Your task to perform on an android device: allow notifications from all sites in the chrome app Image 0: 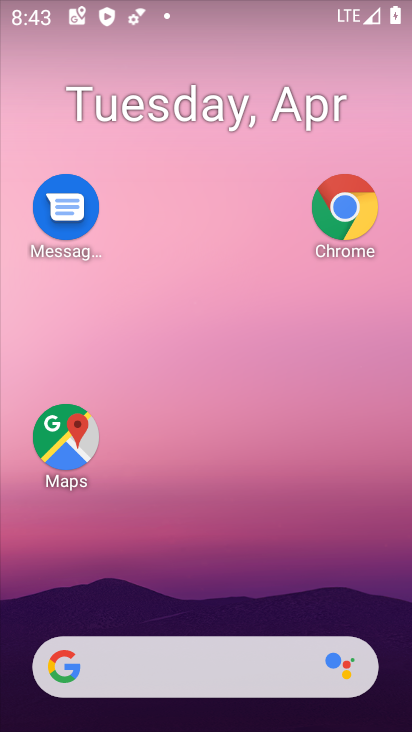
Step 0: drag from (197, 621) to (219, 2)
Your task to perform on an android device: allow notifications from all sites in the chrome app Image 1: 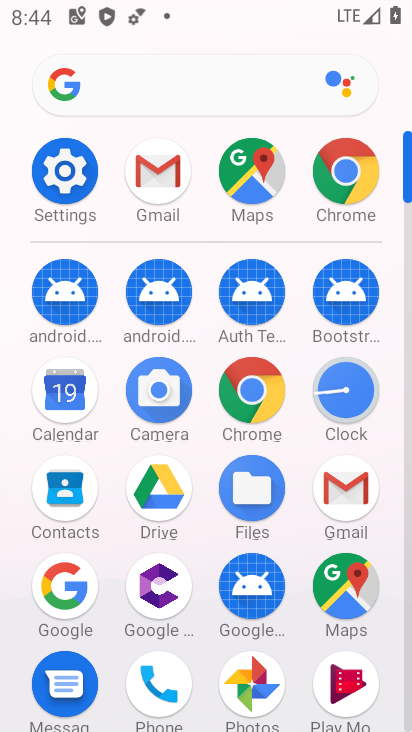
Step 1: click (335, 177)
Your task to perform on an android device: allow notifications from all sites in the chrome app Image 2: 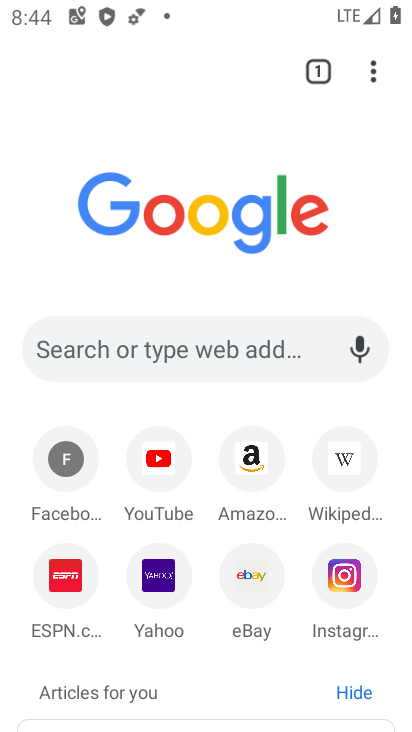
Step 2: click (369, 73)
Your task to perform on an android device: allow notifications from all sites in the chrome app Image 3: 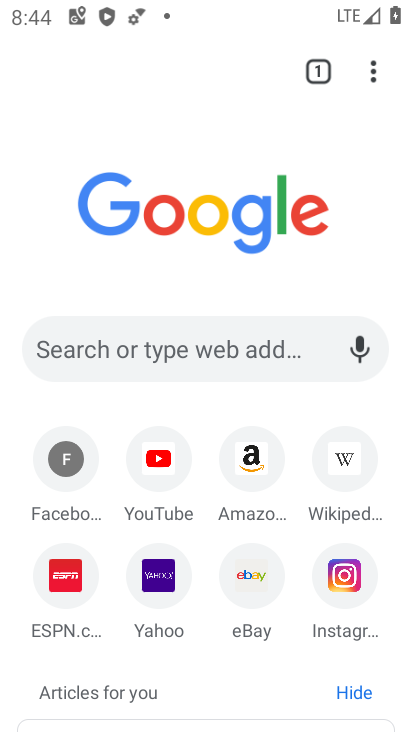
Step 3: click (369, 73)
Your task to perform on an android device: allow notifications from all sites in the chrome app Image 4: 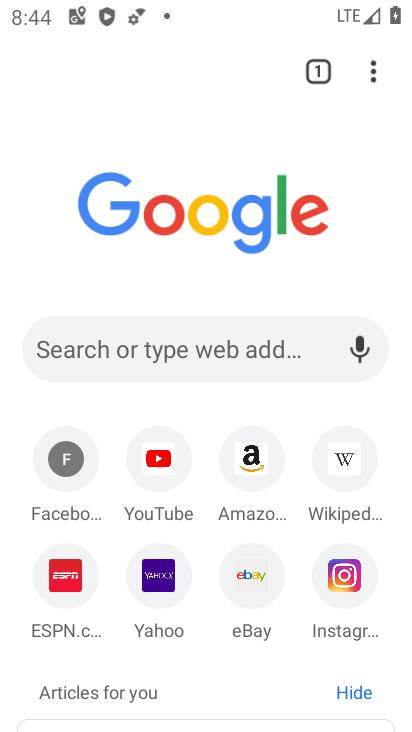
Step 4: click (365, 73)
Your task to perform on an android device: allow notifications from all sites in the chrome app Image 5: 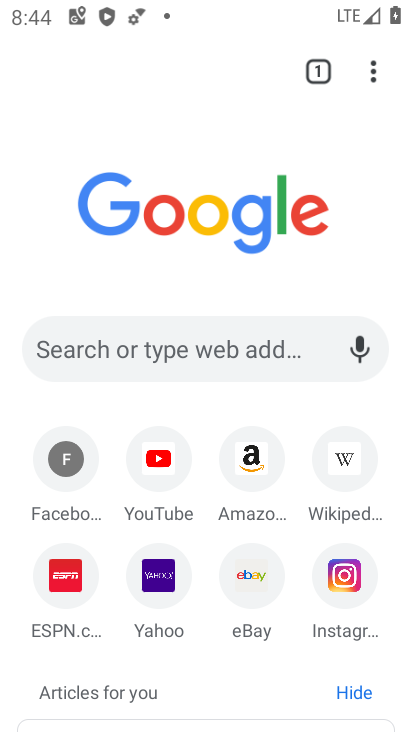
Step 5: click (370, 76)
Your task to perform on an android device: allow notifications from all sites in the chrome app Image 6: 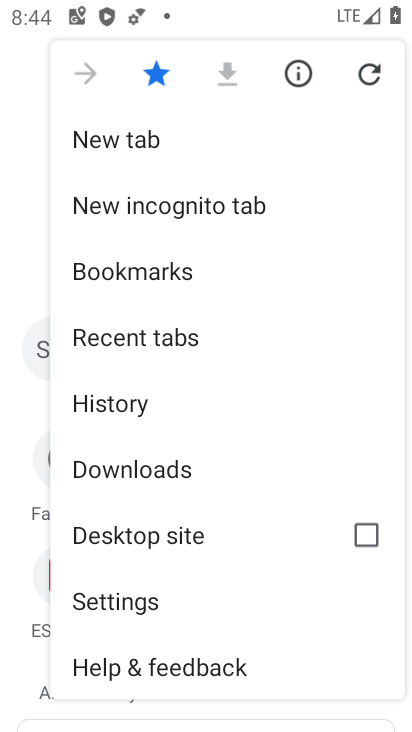
Step 6: click (110, 597)
Your task to perform on an android device: allow notifications from all sites in the chrome app Image 7: 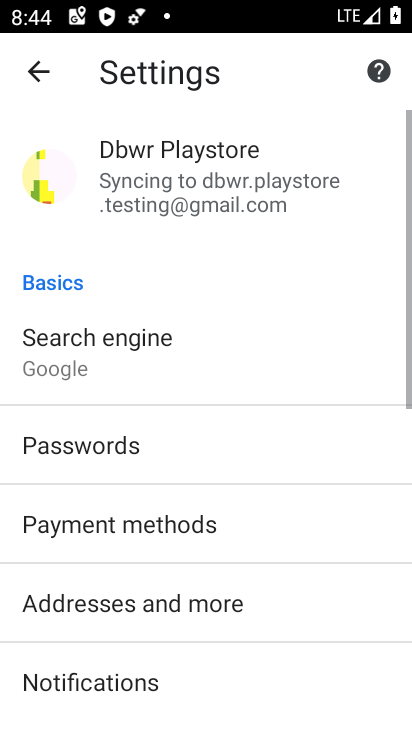
Step 7: drag from (132, 654) to (144, 86)
Your task to perform on an android device: allow notifications from all sites in the chrome app Image 8: 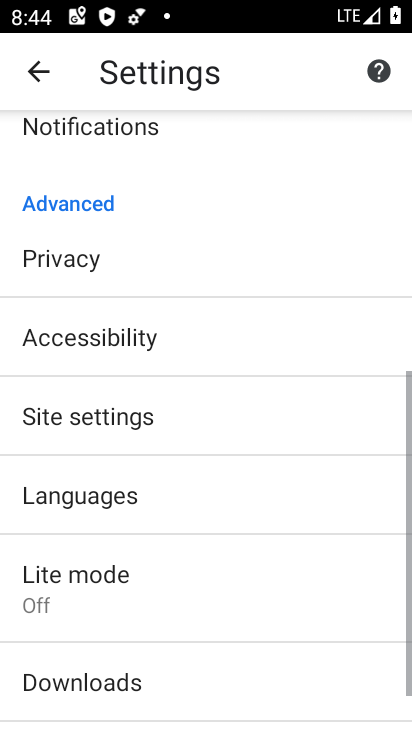
Step 8: click (96, 424)
Your task to perform on an android device: allow notifications from all sites in the chrome app Image 9: 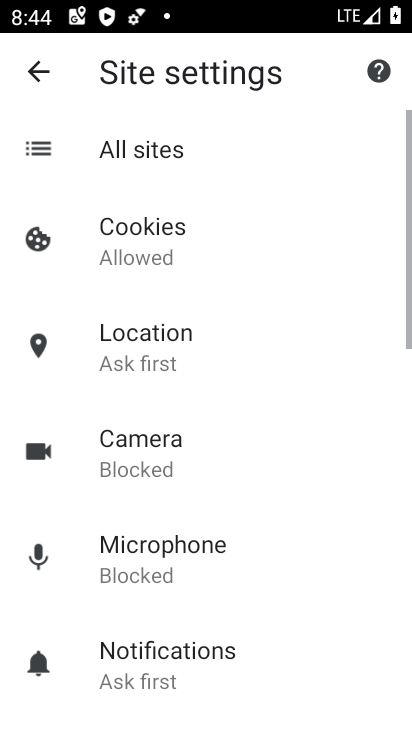
Step 9: drag from (163, 569) to (150, 178)
Your task to perform on an android device: allow notifications from all sites in the chrome app Image 10: 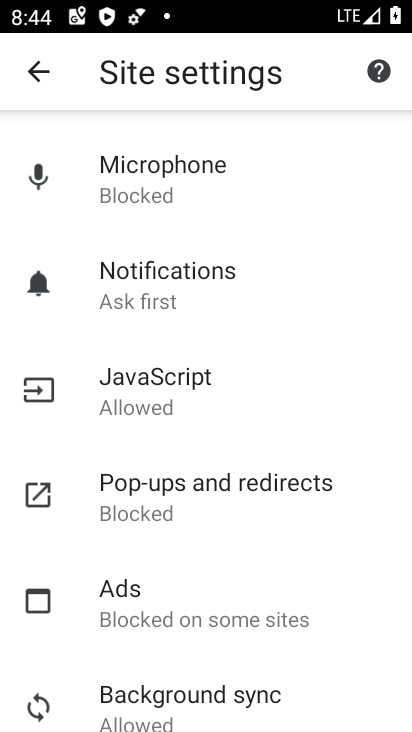
Step 10: click (173, 293)
Your task to perform on an android device: allow notifications from all sites in the chrome app Image 11: 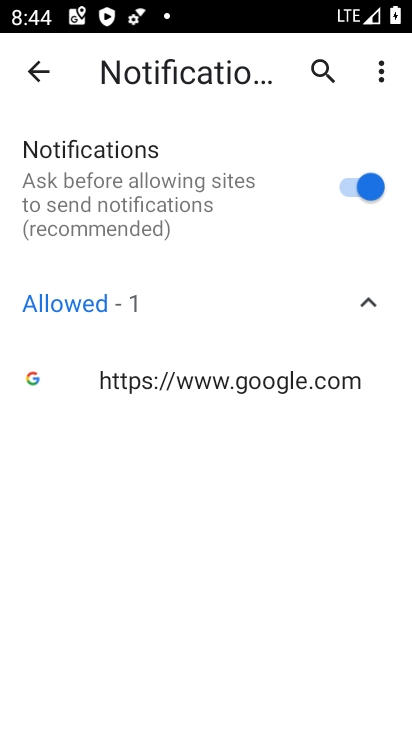
Step 11: task complete